Your task to perform on an android device: add a contact Image 0: 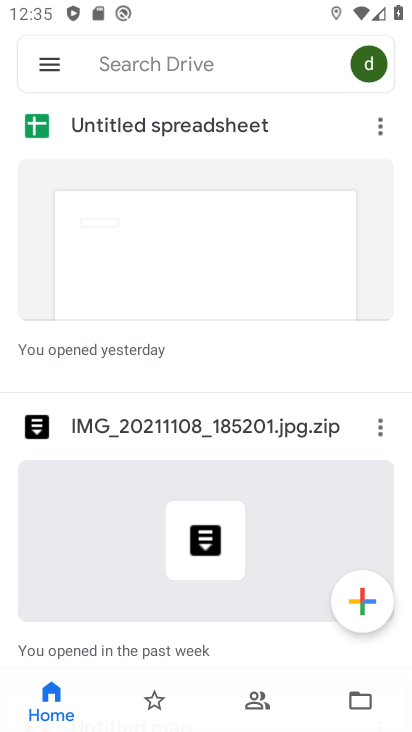
Step 0: press back button
Your task to perform on an android device: add a contact Image 1: 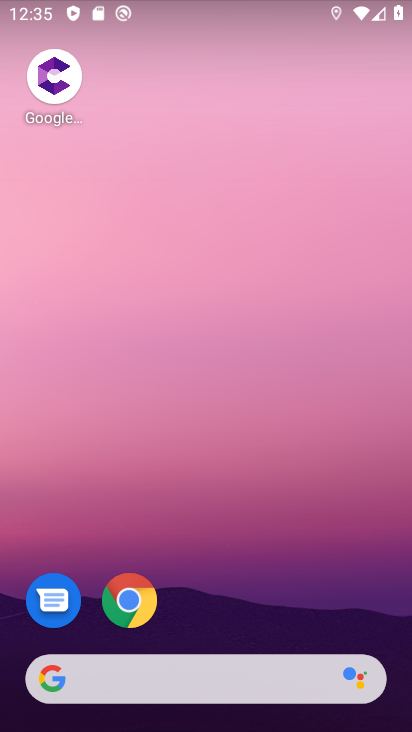
Step 1: drag from (233, 643) to (287, 277)
Your task to perform on an android device: add a contact Image 2: 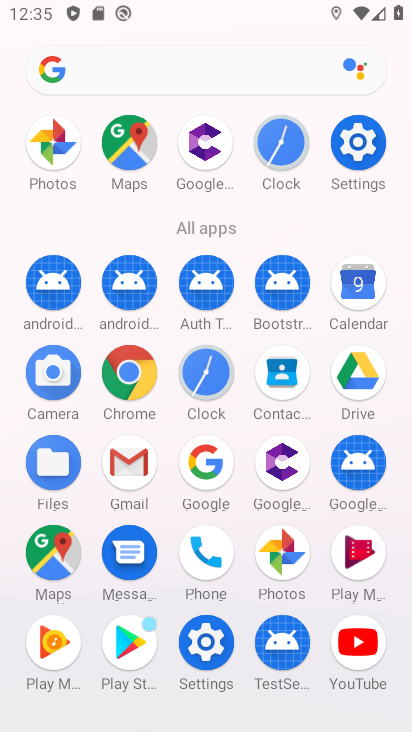
Step 2: click (277, 381)
Your task to perform on an android device: add a contact Image 3: 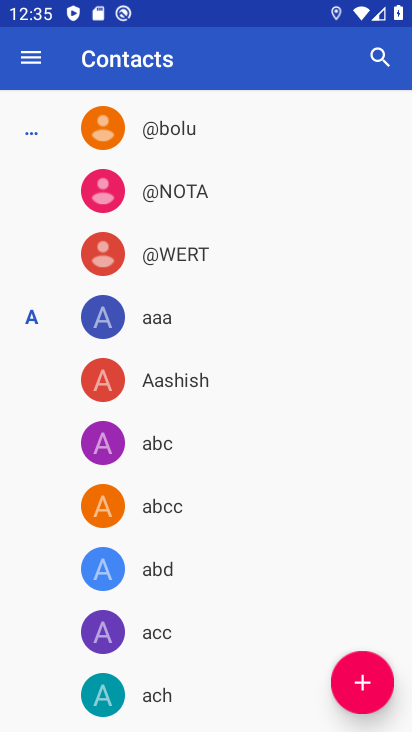
Step 3: click (370, 680)
Your task to perform on an android device: add a contact Image 4: 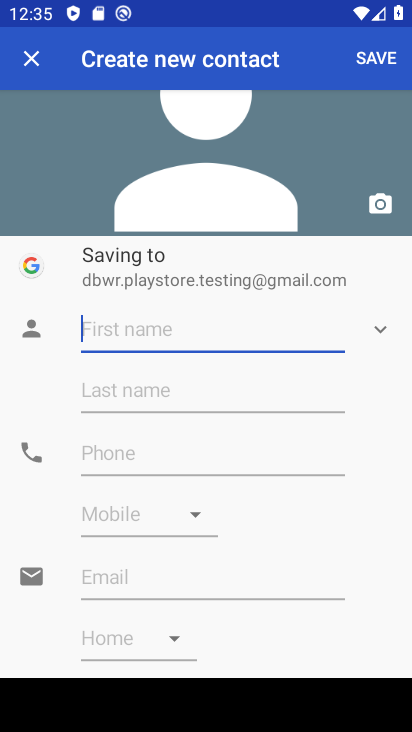
Step 4: type "rimmp "
Your task to perform on an android device: add a contact Image 5: 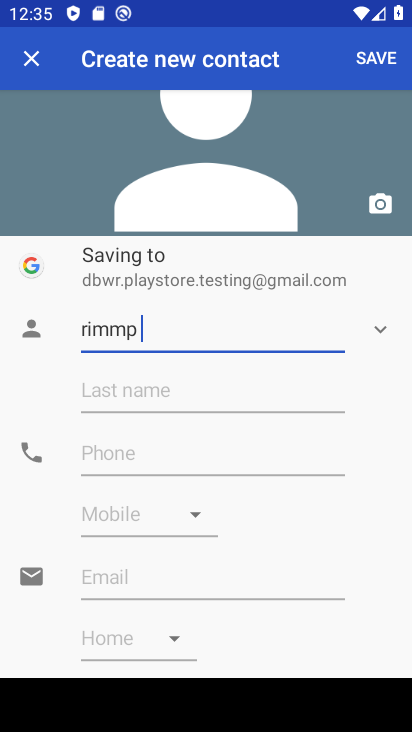
Step 5: click (298, 442)
Your task to perform on an android device: add a contact Image 6: 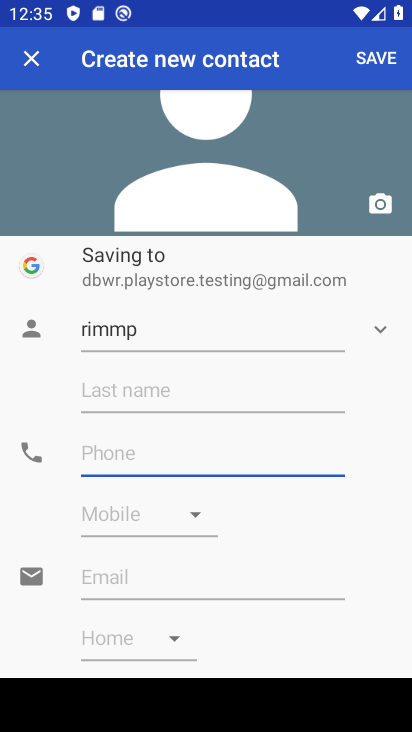
Step 6: type "2323232323"
Your task to perform on an android device: add a contact Image 7: 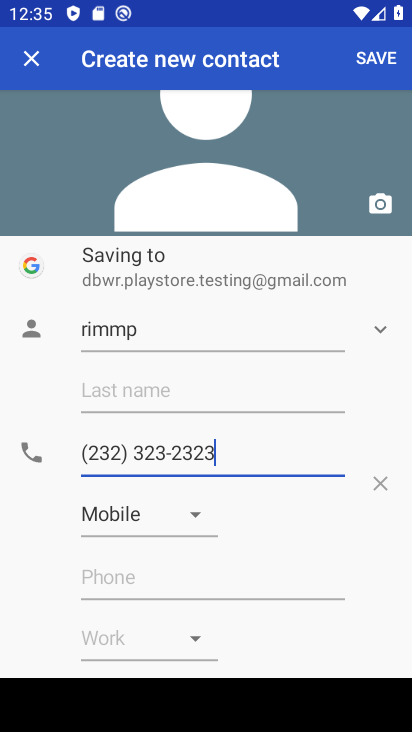
Step 7: click (387, 49)
Your task to perform on an android device: add a contact Image 8: 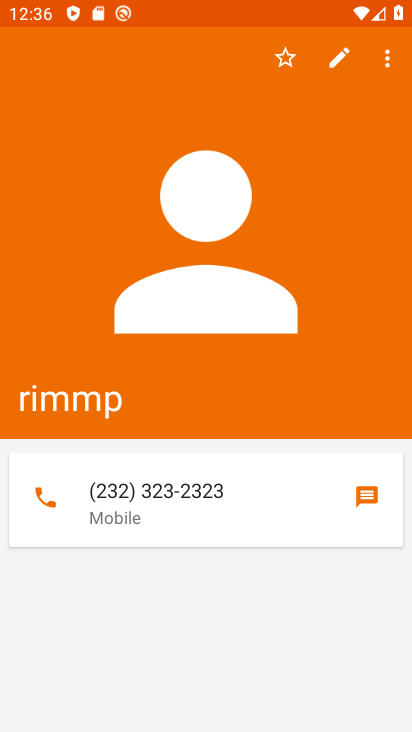
Step 8: task complete